Your task to perform on an android device: Open Google Chrome Image 0: 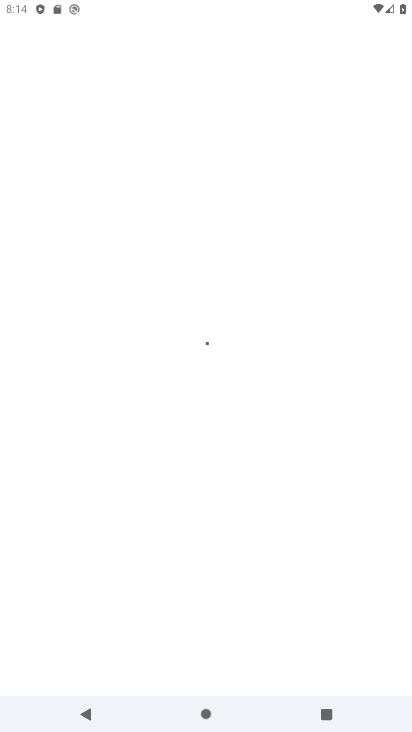
Step 0: press home button
Your task to perform on an android device: Open Google Chrome Image 1: 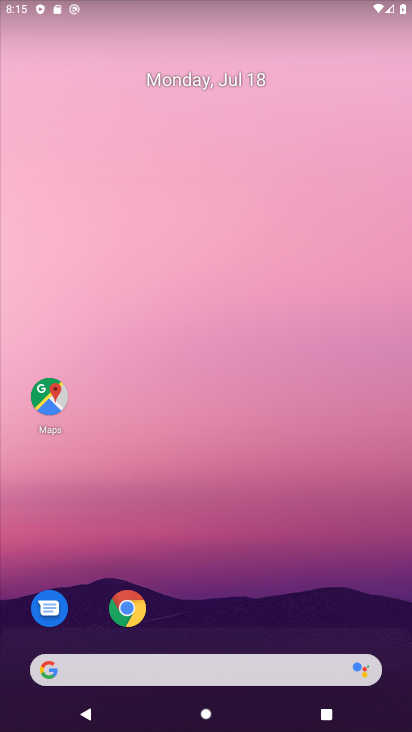
Step 1: click (128, 608)
Your task to perform on an android device: Open Google Chrome Image 2: 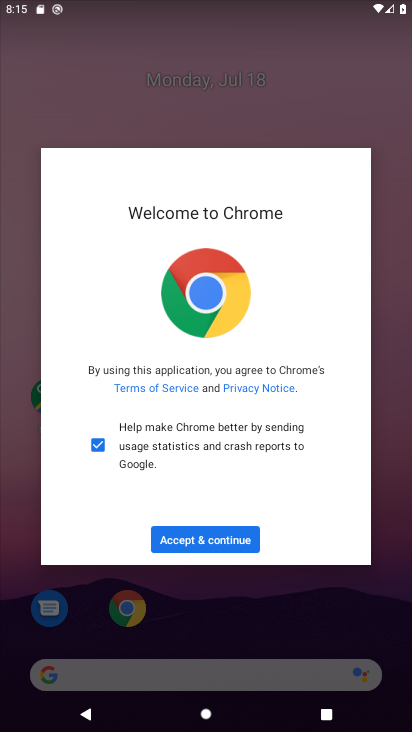
Step 2: click (208, 539)
Your task to perform on an android device: Open Google Chrome Image 3: 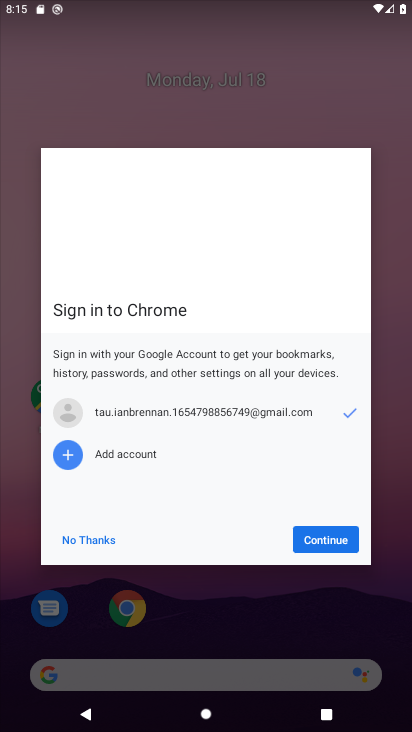
Step 3: click (325, 545)
Your task to perform on an android device: Open Google Chrome Image 4: 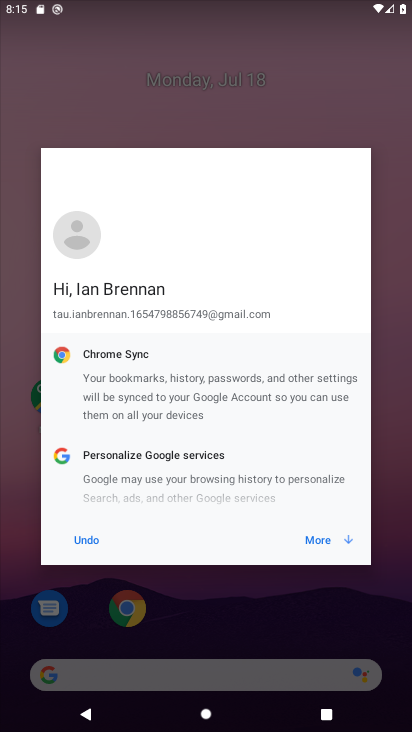
Step 4: click (325, 536)
Your task to perform on an android device: Open Google Chrome Image 5: 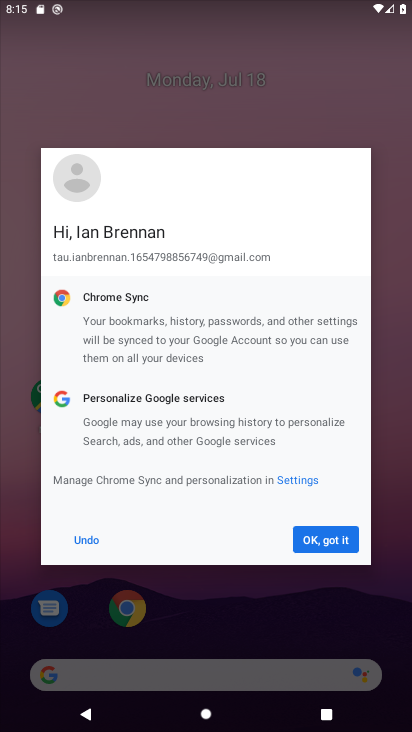
Step 5: click (330, 548)
Your task to perform on an android device: Open Google Chrome Image 6: 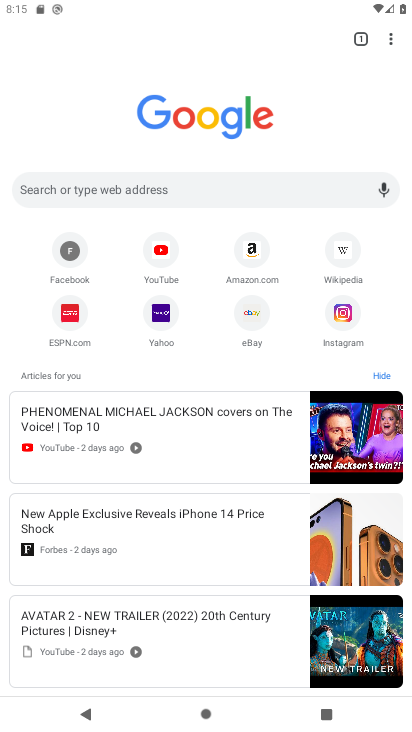
Step 6: task complete